Your task to perform on an android device: delete location history Image 0: 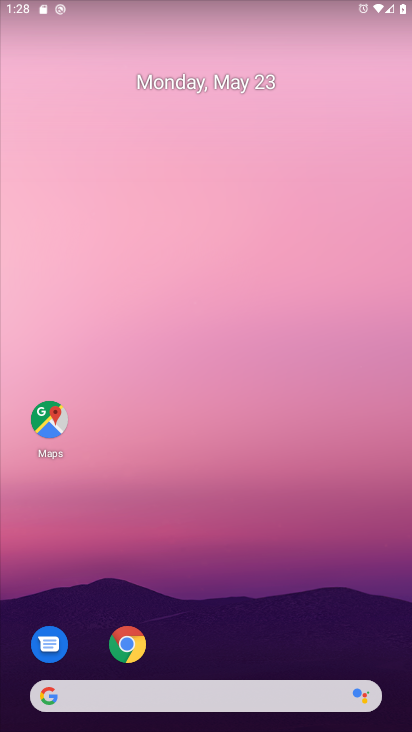
Step 0: drag from (254, 650) to (261, 209)
Your task to perform on an android device: delete location history Image 1: 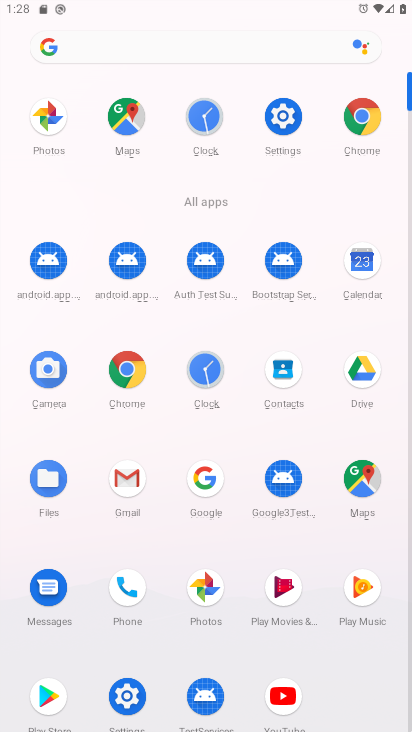
Step 1: click (116, 123)
Your task to perform on an android device: delete location history Image 2: 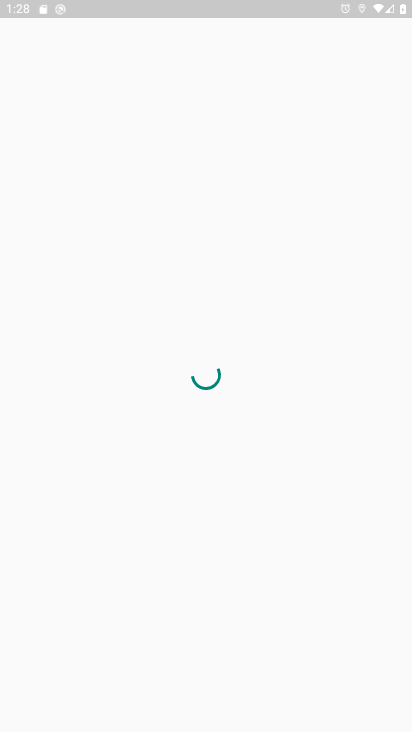
Step 2: click (31, 46)
Your task to perform on an android device: delete location history Image 3: 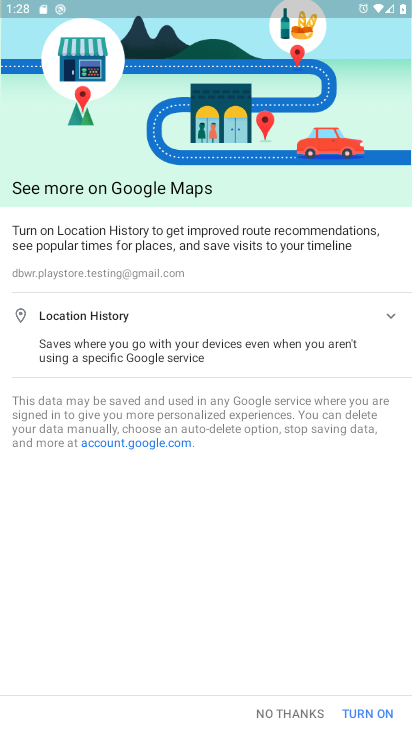
Step 3: click (291, 720)
Your task to perform on an android device: delete location history Image 4: 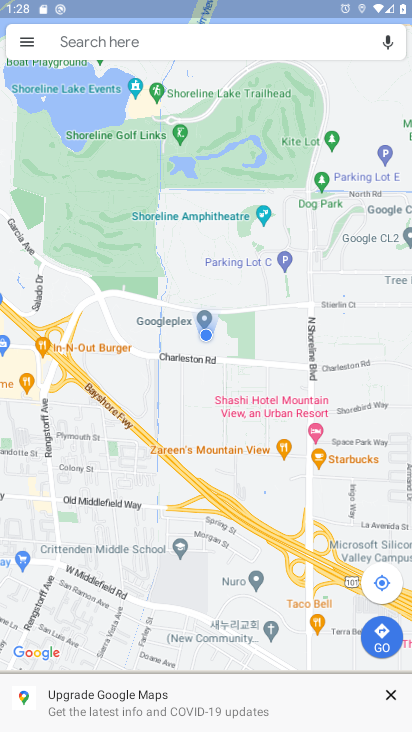
Step 4: click (36, 47)
Your task to perform on an android device: delete location history Image 5: 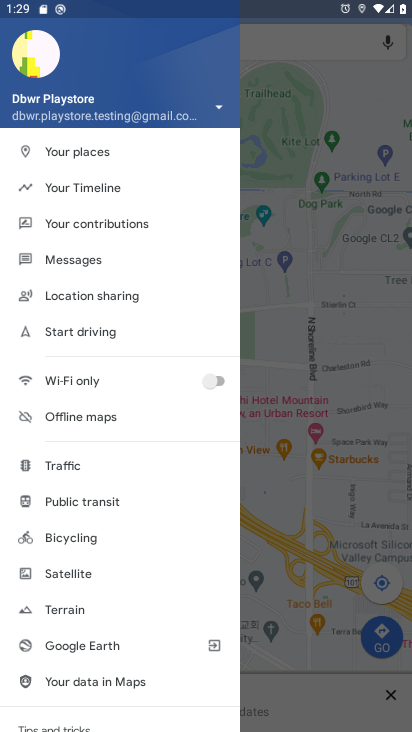
Step 5: click (107, 195)
Your task to perform on an android device: delete location history Image 6: 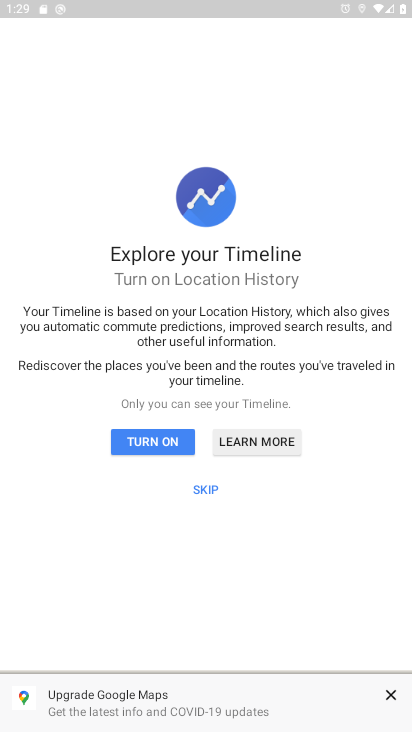
Step 6: click (208, 493)
Your task to perform on an android device: delete location history Image 7: 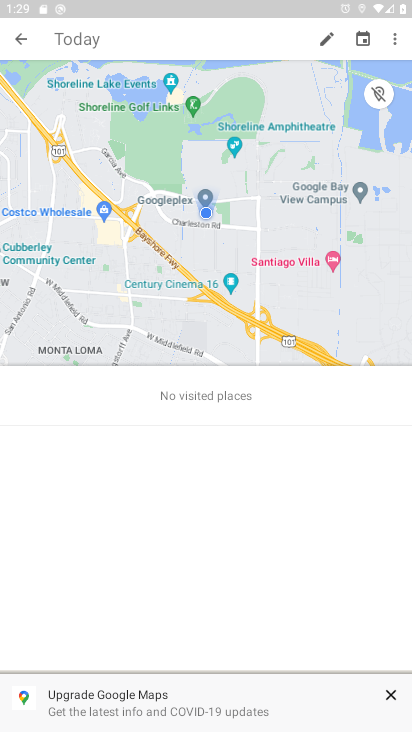
Step 7: click (399, 43)
Your task to perform on an android device: delete location history Image 8: 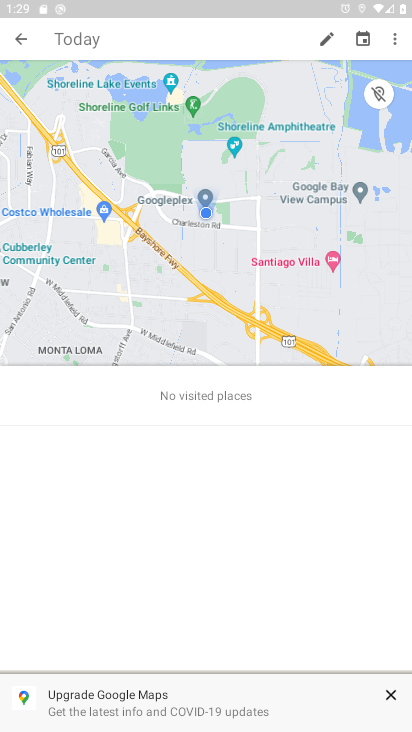
Step 8: click (395, 38)
Your task to perform on an android device: delete location history Image 9: 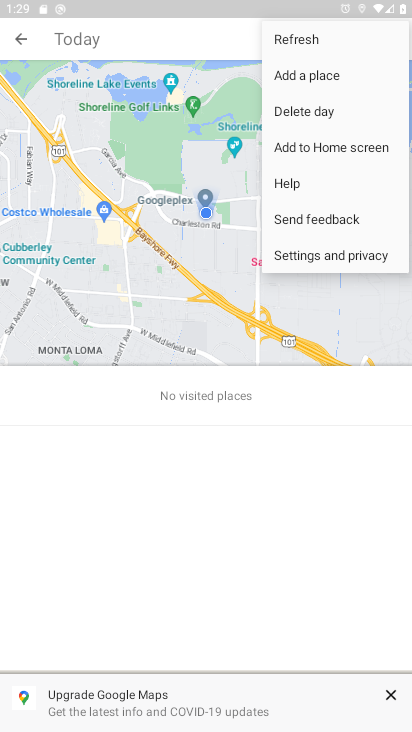
Step 9: click (395, 38)
Your task to perform on an android device: delete location history Image 10: 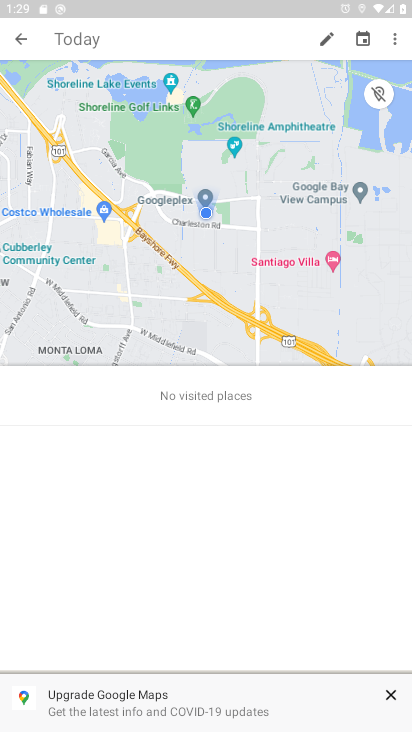
Step 10: click (395, 38)
Your task to perform on an android device: delete location history Image 11: 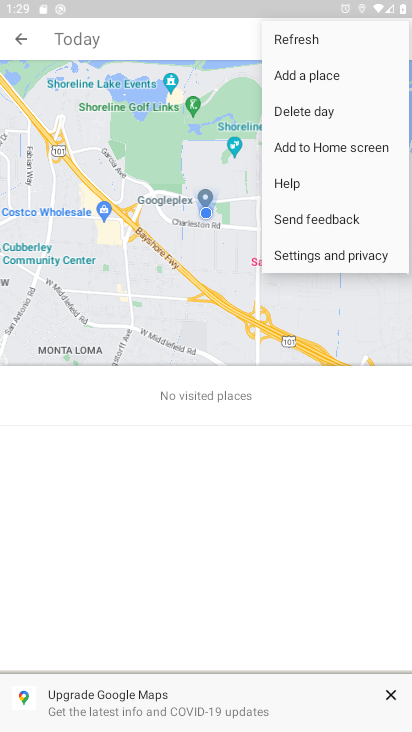
Step 11: click (312, 261)
Your task to perform on an android device: delete location history Image 12: 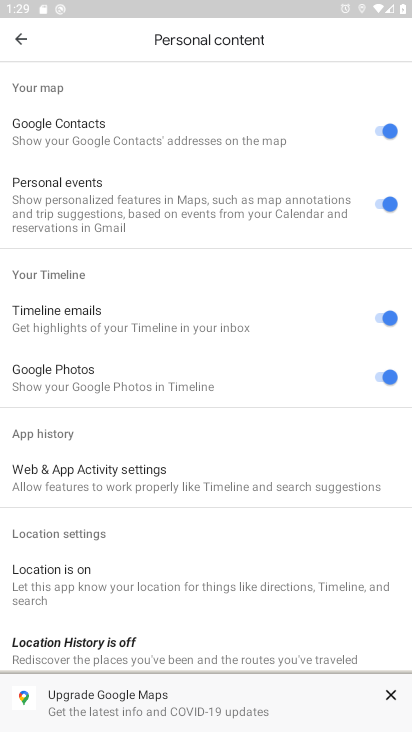
Step 12: drag from (153, 636) to (166, 447)
Your task to perform on an android device: delete location history Image 13: 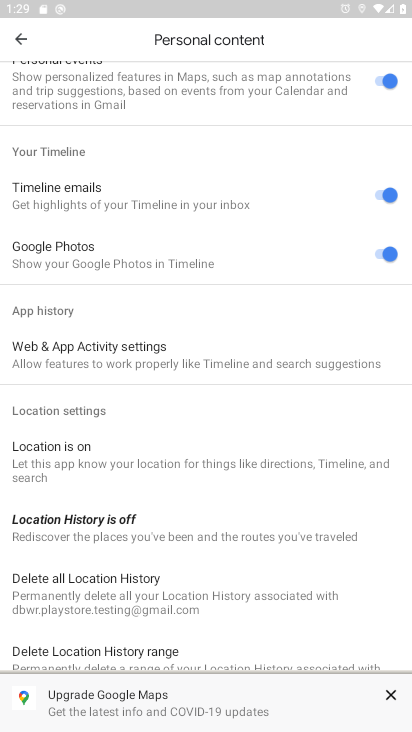
Step 13: drag from (199, 604) to (223, 447)
Your task to perform on an android device: delete location history Image 14: 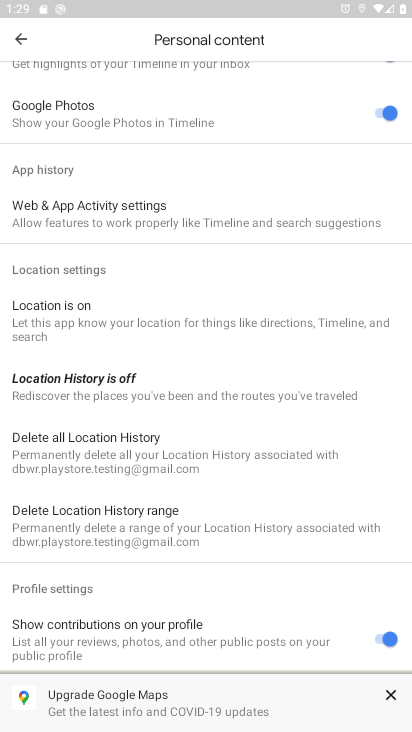
Step 14: click (120, 448)
Your task to perform on an android device: delete location history Image 15: 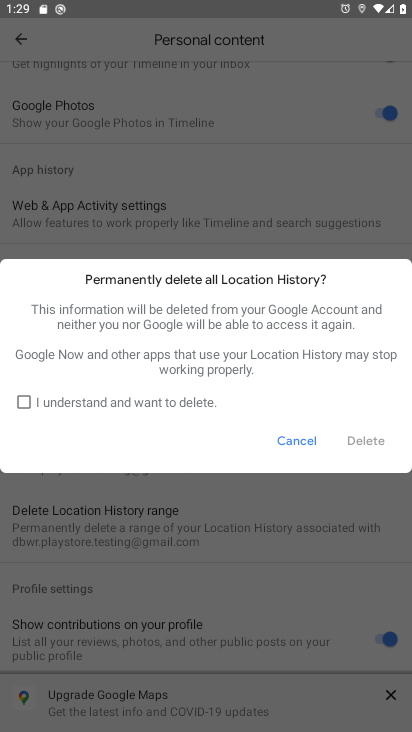
Step 15: click (25, 406)
Your task to perform on an android device: delete location history Image 16: 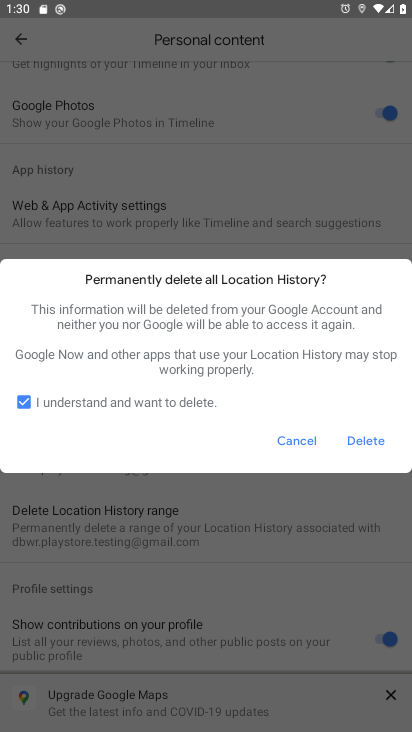
Step 16: click (359, 443)
Your task to perform on an android device: delete location history Image 17: 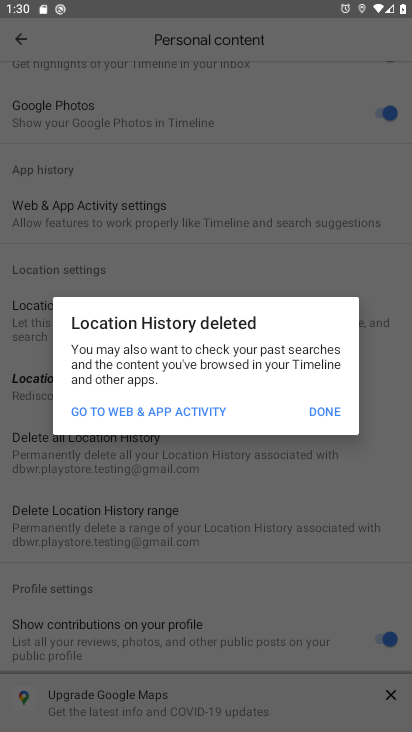
Step 17: click (324, 410)
Your task to perform on an android device: delete location history Image 18: 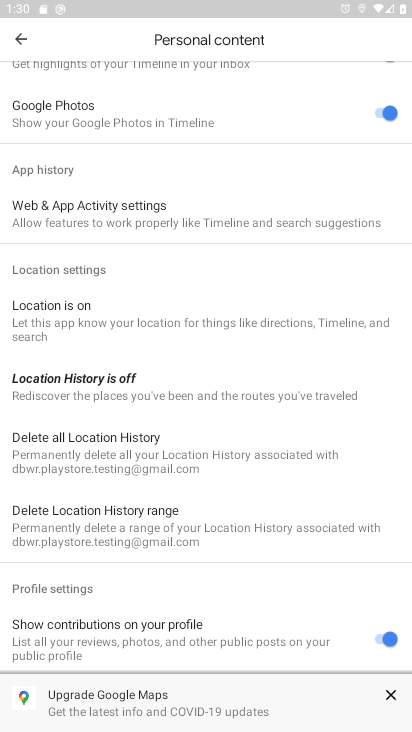
Step 18: task complete